Your task to perform on an android device: turn on airplane mode Image 0: 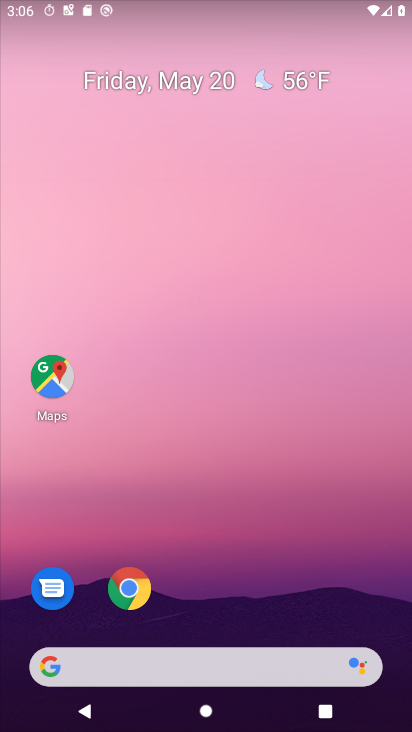
Step 0: drag from (390, 44) to (397, 351)
Your task to perform on an android device: turn on airplane mode Image 1: 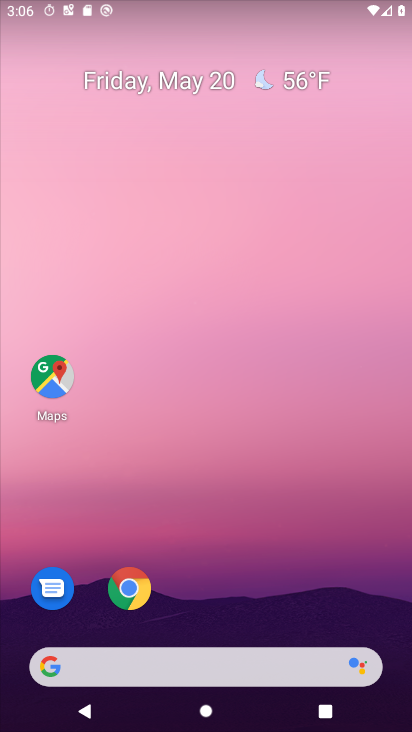
Step 1: drag from (378, 8) to (386, 353)
Your task to perform on an android device: turn on airplane mode Image 2: 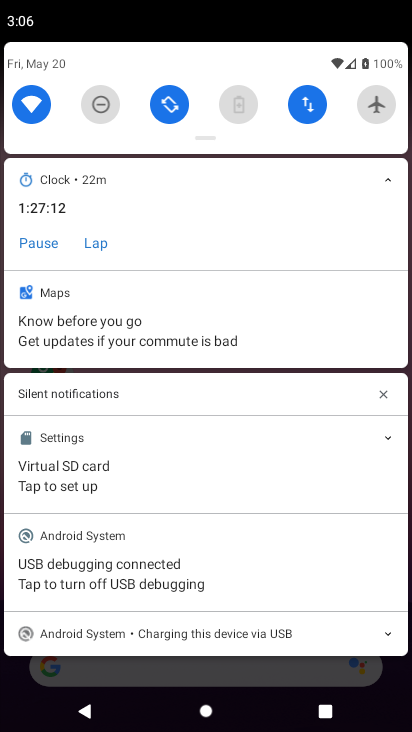
Step 2: click (379, 99)
Your task to perform on an android device: turn on airplane mode Image 3: 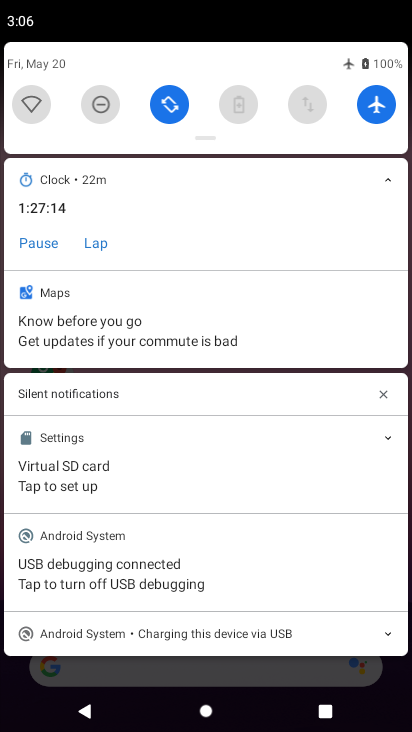
Step 3: task complete